Your task to perform on an android device: Go to Yahoo.com Image 0: 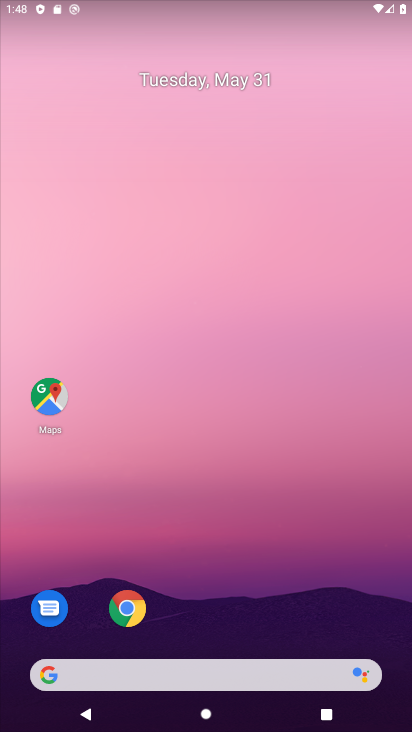
Step 0: click (227, 671)
Your task to perform on an android device: Go to Yahoo.com Image 1: 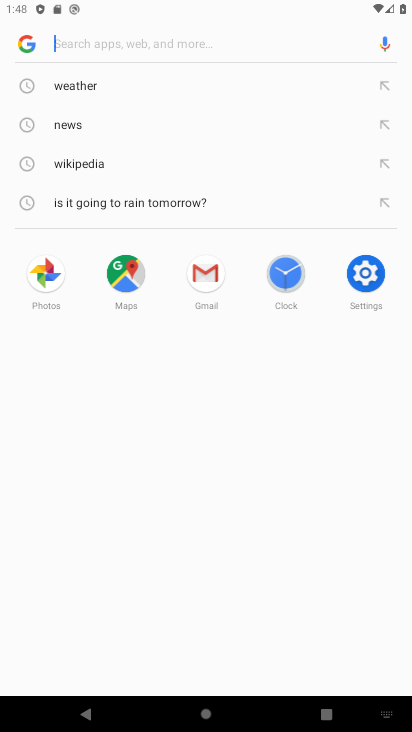
Step 1: type "Yahoo.com"
Your task to perform on an android device: Go to Yahoo.com Image 2: 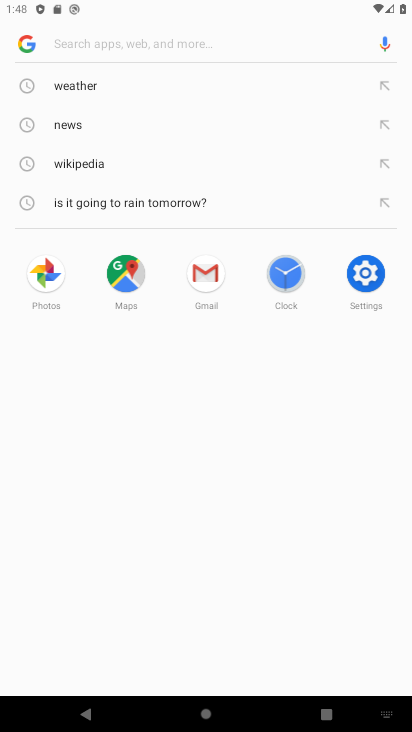
Step 2: click (106, 43)
Your task to perform on an android device: Go to Yahoo.com Image 3: 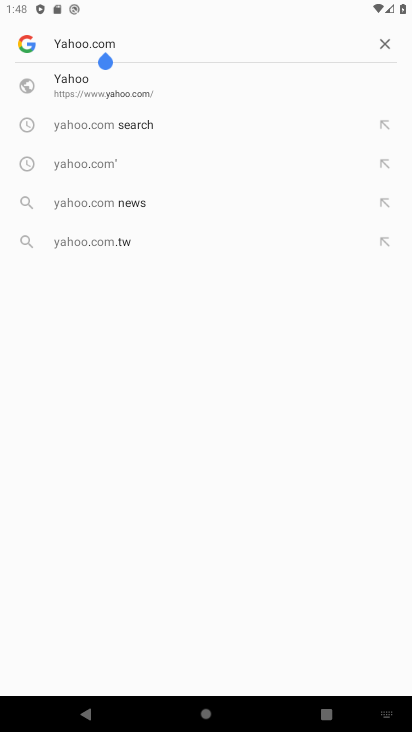
Step 3: click (86, 84)
Your task to perform on an android device: Go to Yahoo.com Image 4: 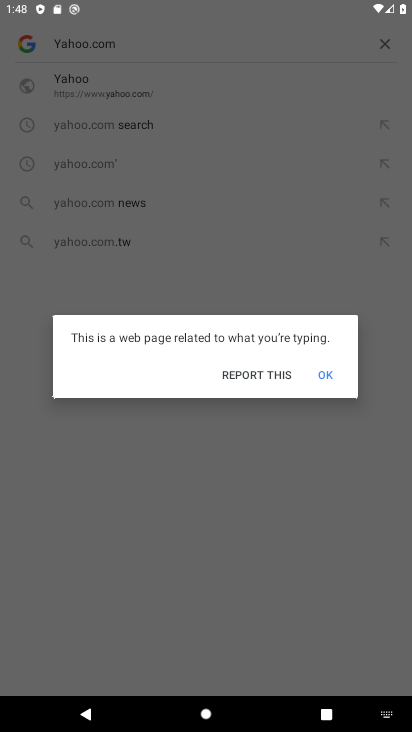
Step 4: click (326, 378)
Your task to perform on an android device: Go to Yahoo.com Image 5: 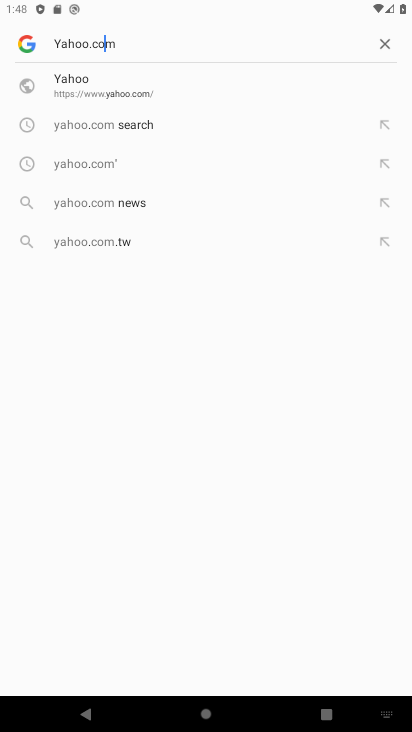
Step 5: click (116, 94)
Your task to perform on an android device: Go to Yahoo.com Image 6: 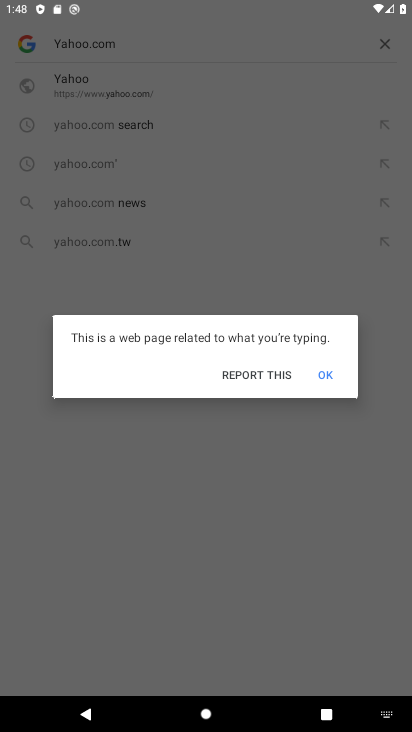
Step 6: click (323, 371)
Your task to perform on an android device: Go to Yahoo.com Image 7: 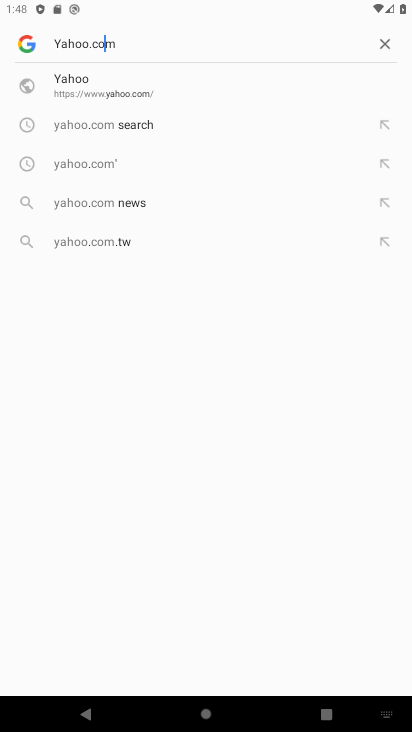
Step 7: click (120, 156)
Your task to perform on an android device: Go to Yahoo.com Image 8: 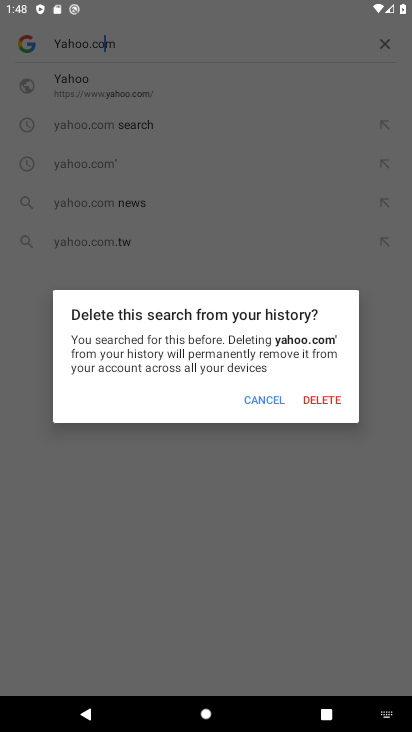
Step 8: click (325, 400)
Your task to perform on an android device: Go to Yahoo.com Image 9: 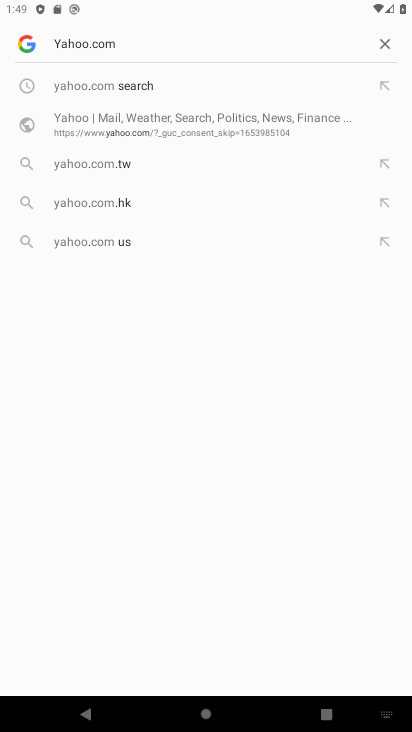
Step 9: press home button
Your task to perform on an android device: Go to Yahoo.com Image 10: 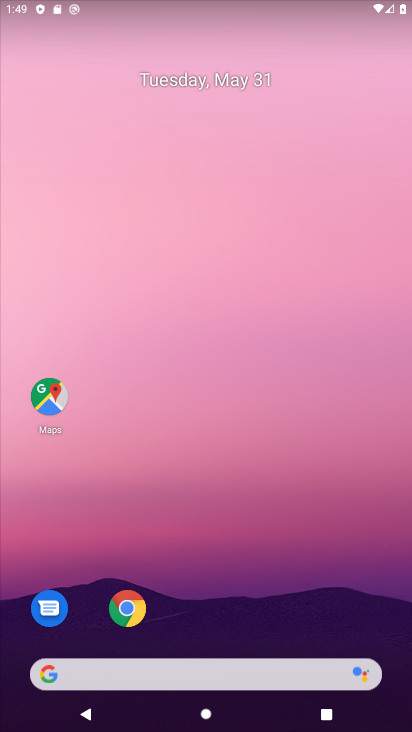
Step 10: click (203, 673)
Your task to perform on an android device: Go to Yahoo.com Image 11: 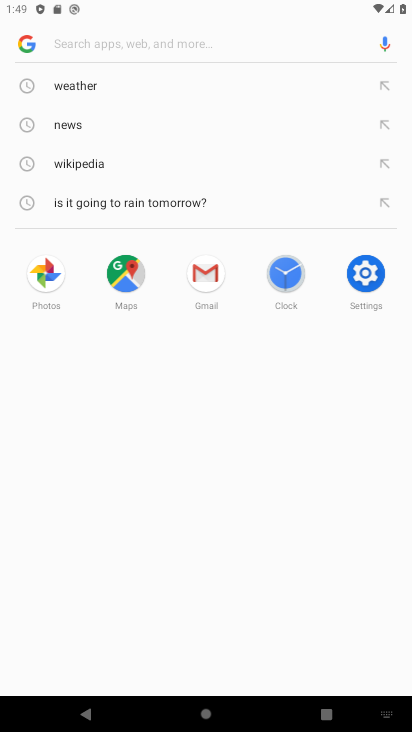
Step 11: type " Yahoo.com"
Your task to perform on an android device: Go to Yahoo.com Image 12: 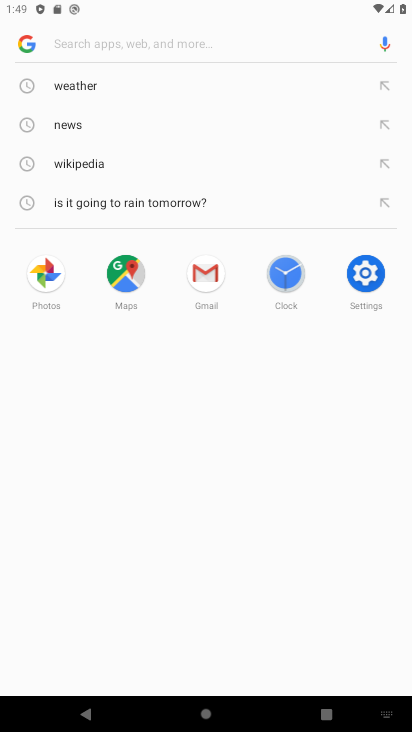
Step 12: click (177, 43)
Your task to perform on an android device: Go to Yahoo.com Image 13: 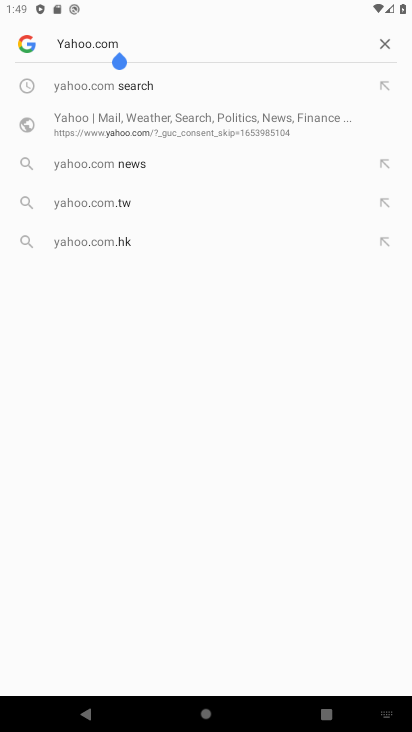
Step 13: click (122, 116)
Your task to perform on an android device: Go to Yahoo.com Image 14: 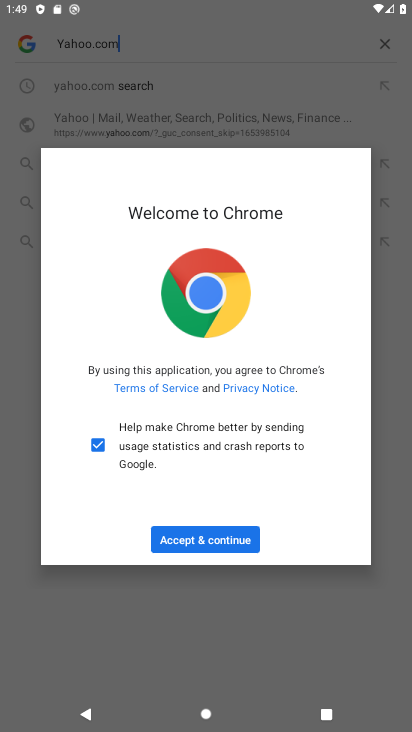
Step 14: click (228, 538)
Your task to perform on an android device: Go to Yahoo.com Image 15: 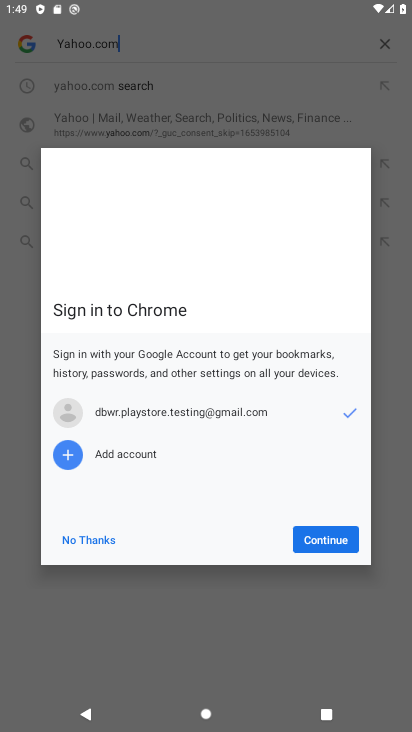
Step 15: click (315, 539)
Your task to perform on an android device: Go to Yahoo.com Image 16: 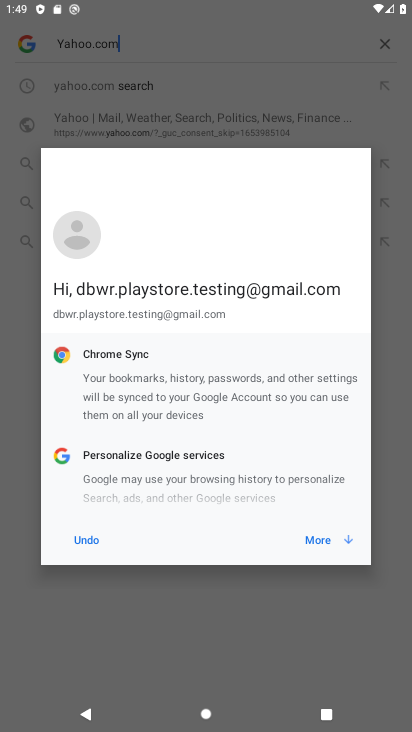
Step 16: click (316, 539)
Your task to perform on an android device: Go to Yahoo.com Image 17: 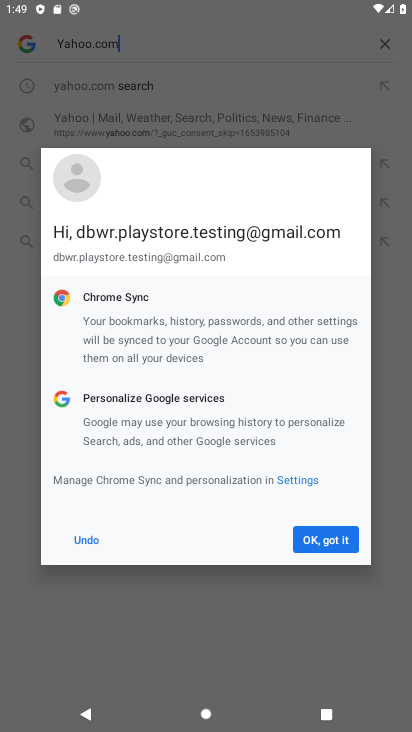
Step 17: click (317, 540)
Your task to perform on an android device: Go to Yahoo.com Image 18: 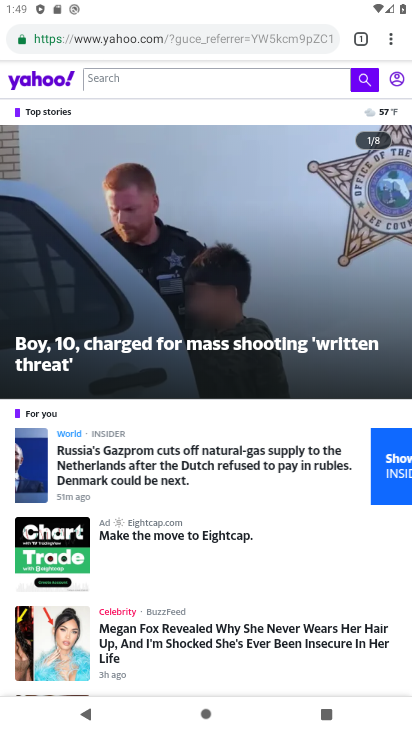
Step 18: task complete